Your task to perform on an android device: find snoozed emails in the gmail app Image 0: 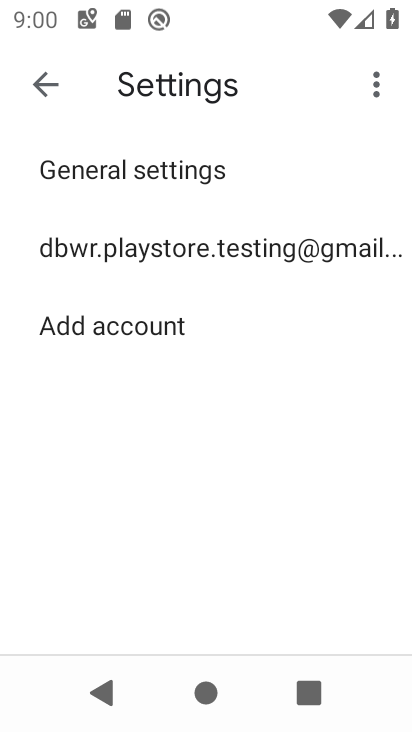
Step 0: press home button
Your task to perform on an android device: find snoozed emails in the gmail app Image 1: 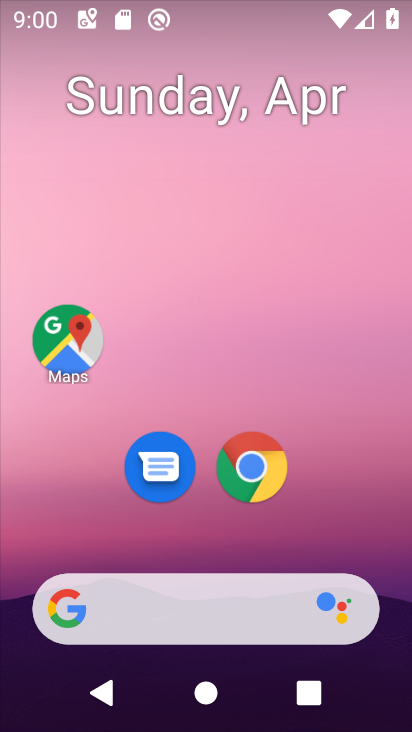
Step 1: drag from (351, 536) to (376, 86)
Your task to perform on an android device: find snoozed emails in the gmail app Image 2: 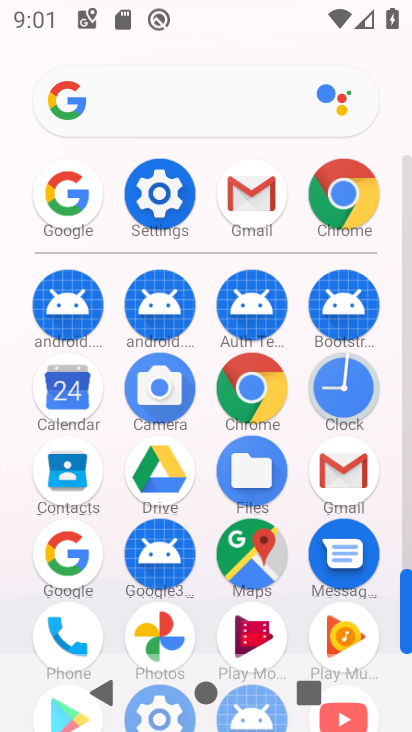
Step 2: click (343, 466)
Your task to perform on an android device: find snoozed emails in the gmail app Image 3: 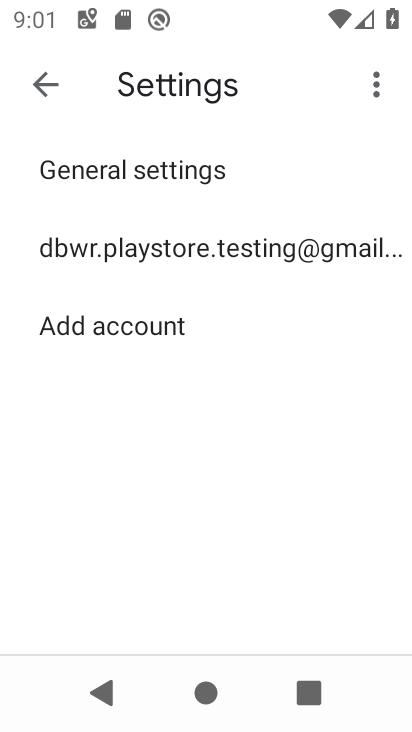
Step 3: click (40, 70)
Your task to perform on an android device: find snoozed emails in the gmail app Image 4: 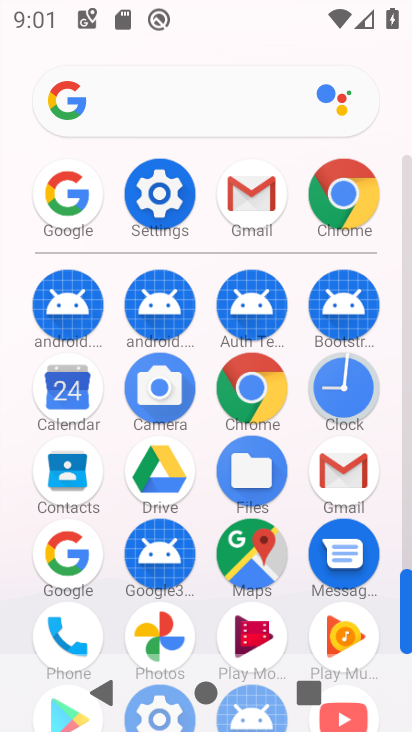
Step 4: click (233, 203)
Your task to perform on an android device: find snoozed emails in the gmail app Image 5: 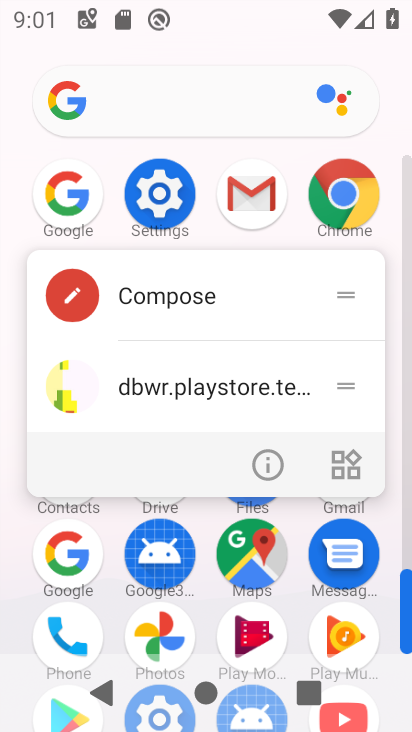
Step 5: click (233, 203)
Your task to perform on an android device: find snoozed emails in the gmail app Image 6: 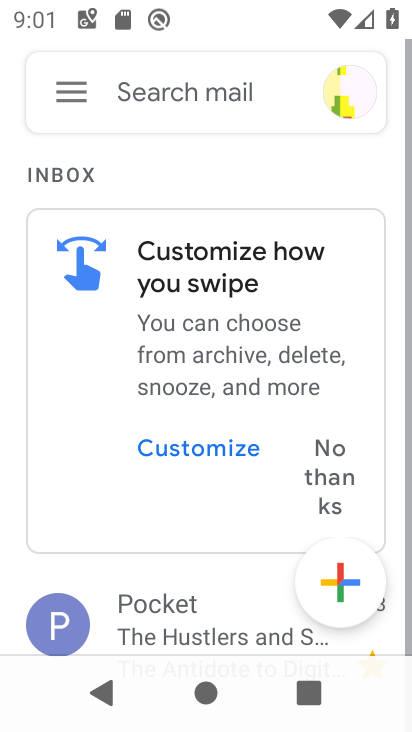
Step 6: click (73, 99)
Your task to perform on an android device: find snoozed emails in the gmail app Image 7: 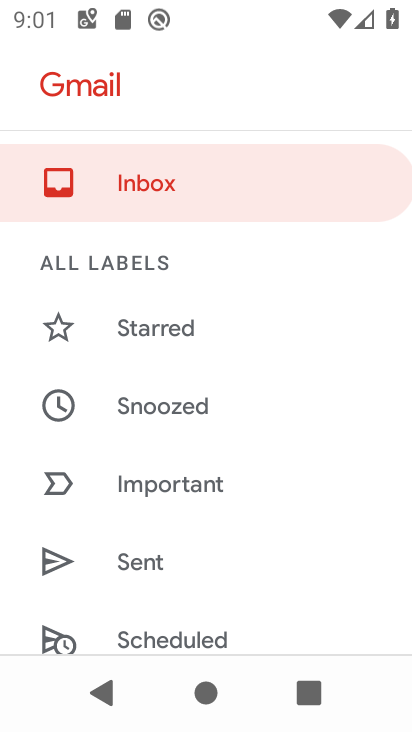
Step 7: click (180, 407)
Your task to perform on an android device: find snoozed emails in the gmail app Image 8: 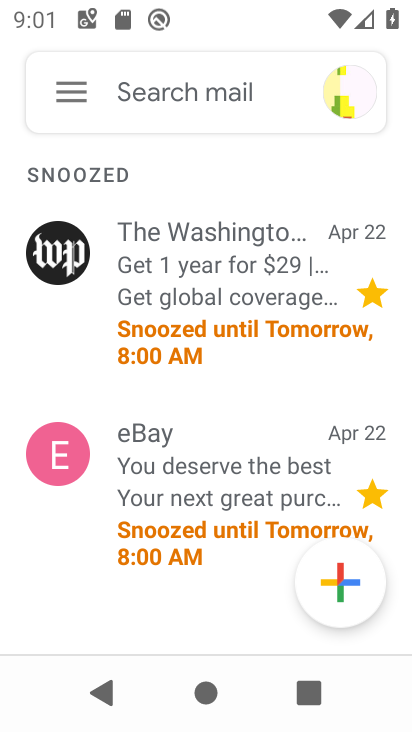
Step 8: task complete